Your task to perform on an android device: Search for Mexican restaurants on Maps Image 0: 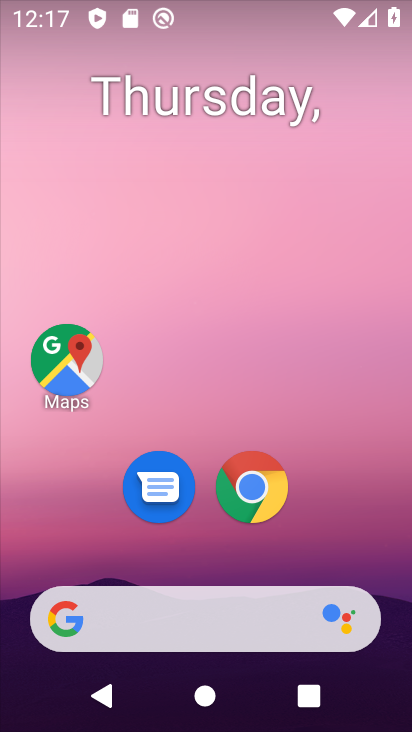
Step 0: click (66, 334)
Your task to perform on an android device: Search for Mexican restaurants on Maps Image 1: 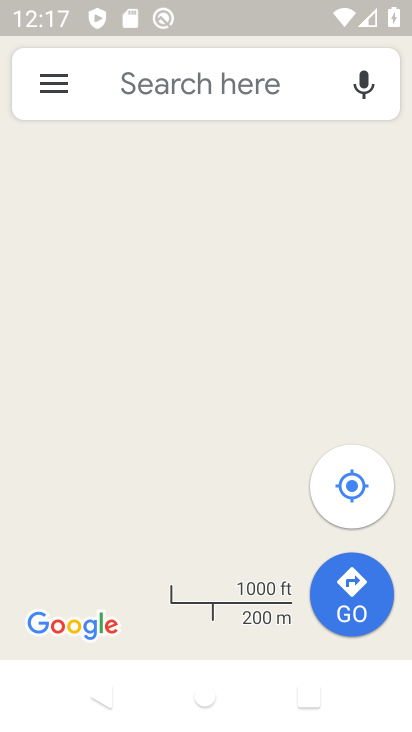
Step 1: click (174, 83)
Your task to perform on an android device: Search for Mexican restaurants on Maps Image 2: 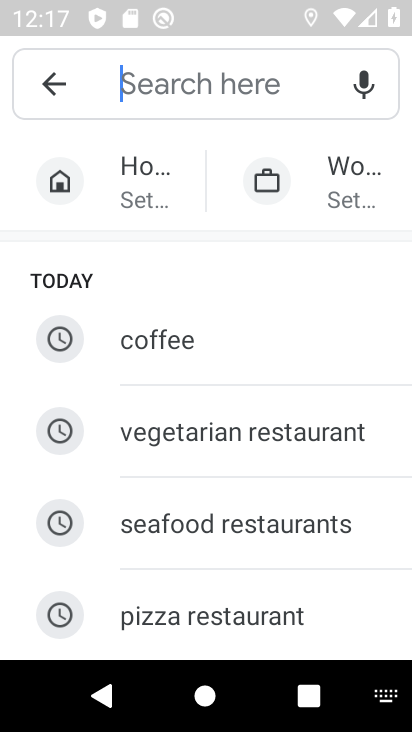
Step 2: type "mexican restaurants"
Your task to perform on an android device: Search for Mexican restaurants on Maps Image 3: 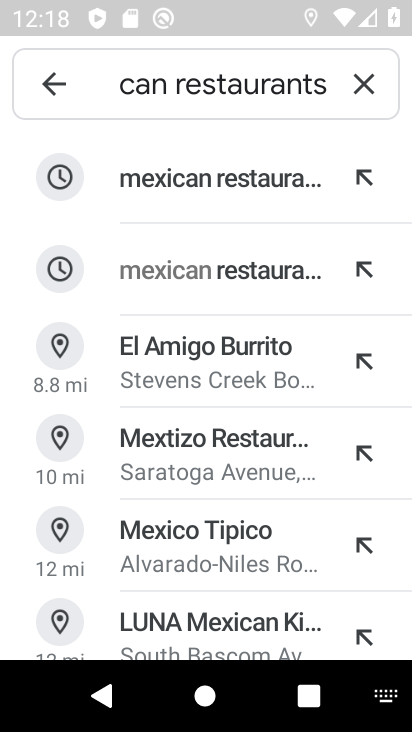
Step 3: click (247, 166)
Your task to perform on an android device: Search for Mexican restaurants on Maps Image 4: 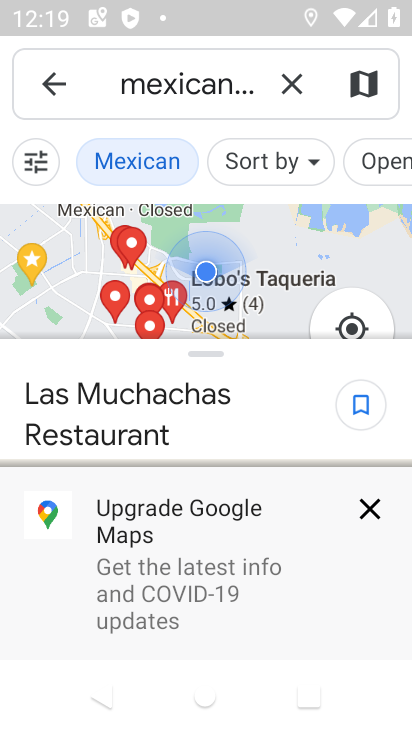
Step 4: task complete